Your task to perform on an android device: turn off location history Image 0: 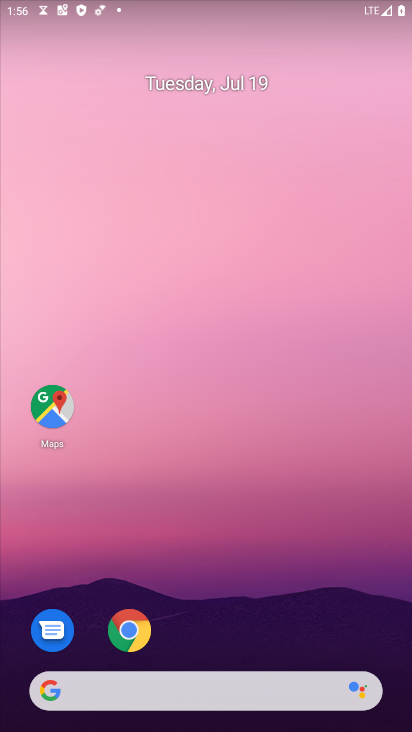
Step 0: drag from (213, 650) to (257, 103)
Your task to perform on an android device: turn off location history Image 1: 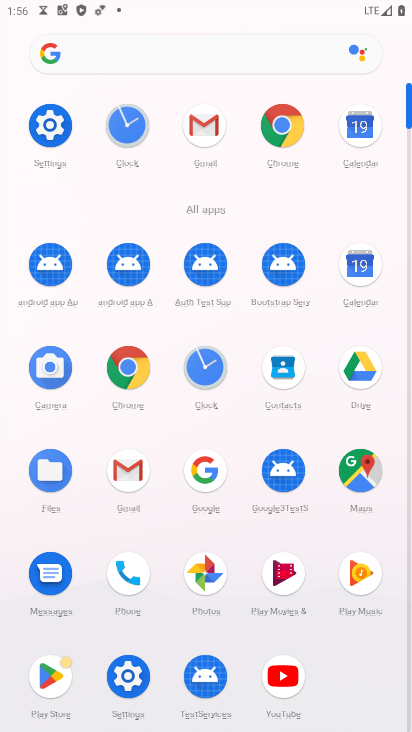
Step 1: click (42, 121)
Your task to perform on an android device: turn off location history Image 2: 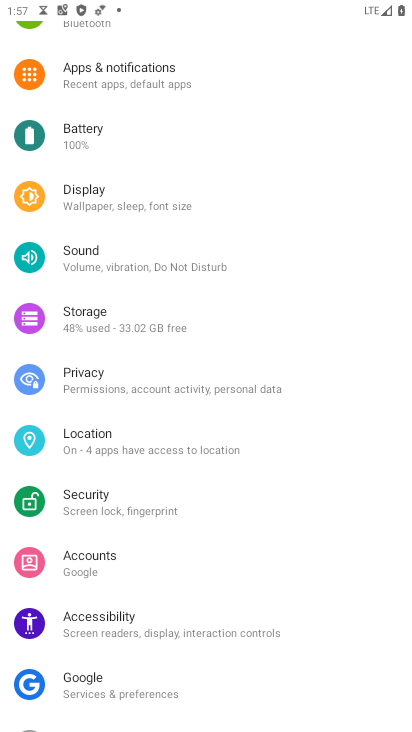
Step 2: click (117, 445)
Your task to perform on an android device: turn off location history Image 3: 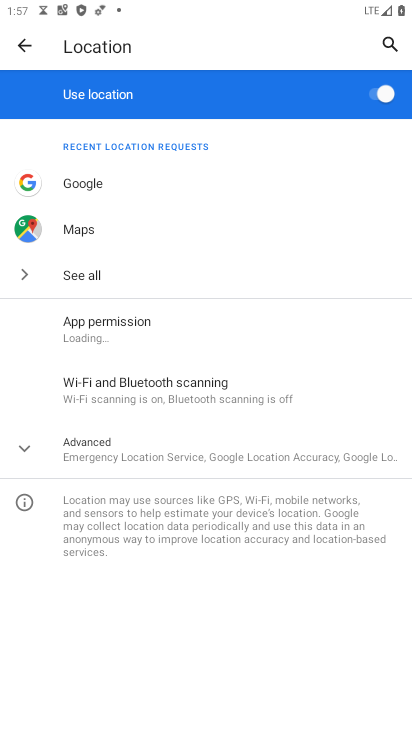
Step 3: click (20, 448)
Your task to perform on an android device: turn off location history Image 4: 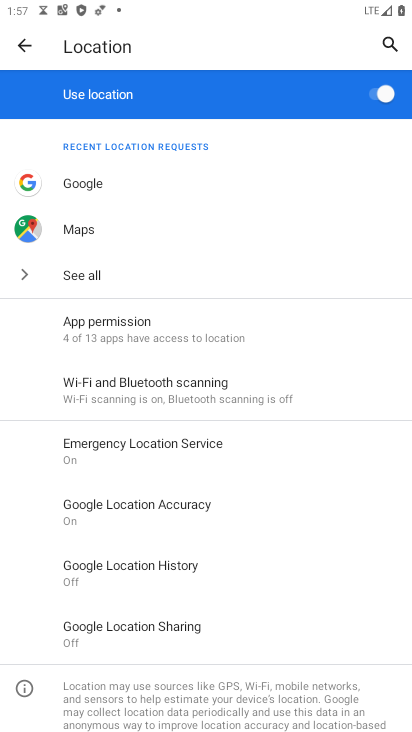
Step 4: click (176, 566)
Your task to perform on an android device: turn off location history Image 5: 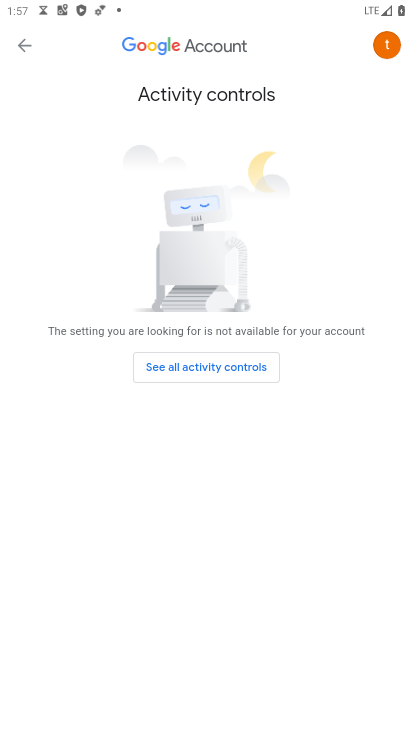
Step 5: click (202, 365)
Your task to perform on an android device: turn off location history Image 6: 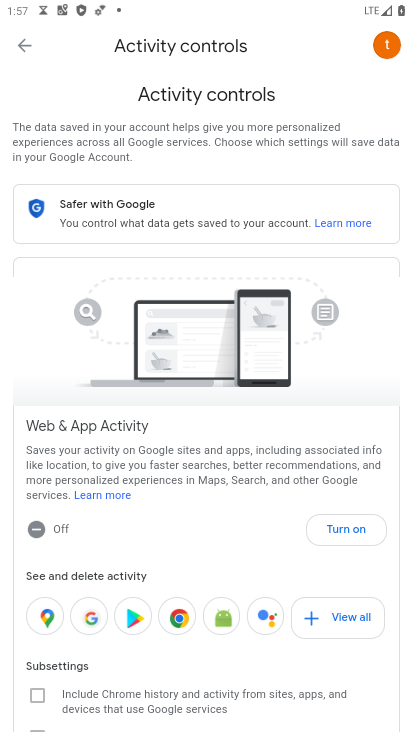
Step 6: task complete